Your task to perform on an android device: Go to network settings Image 0: 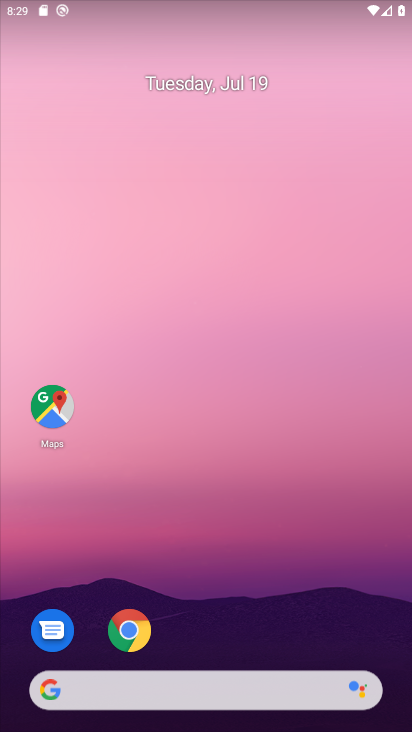
Step 0: drag from (209, 640) to (218, 176)
Your task to perform on an android device: Go to network settings Image 1: 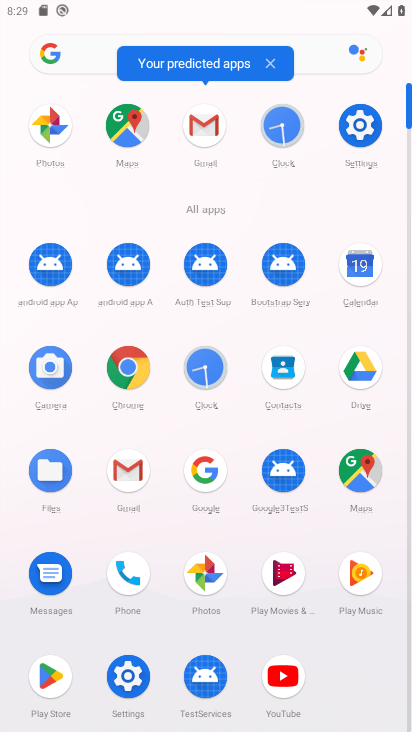
Step 1: click (130, 683)
Your task to perform on an android device: Go to network settings Image 2: 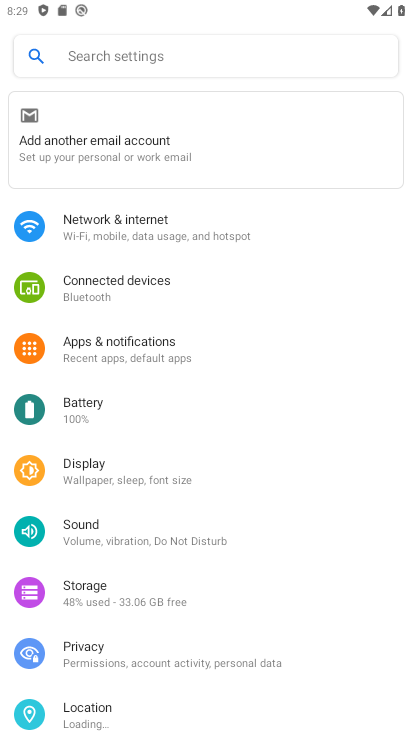
Step 2: click (144, 241)
Your task to perform on an android device: Go to network settings Image 3: 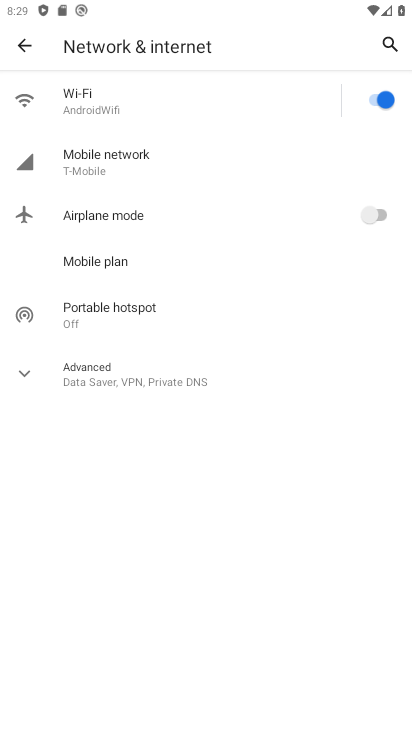
Step 3: click (148, 168)
Your task to perform on an android device: Go to network settings Image 4: 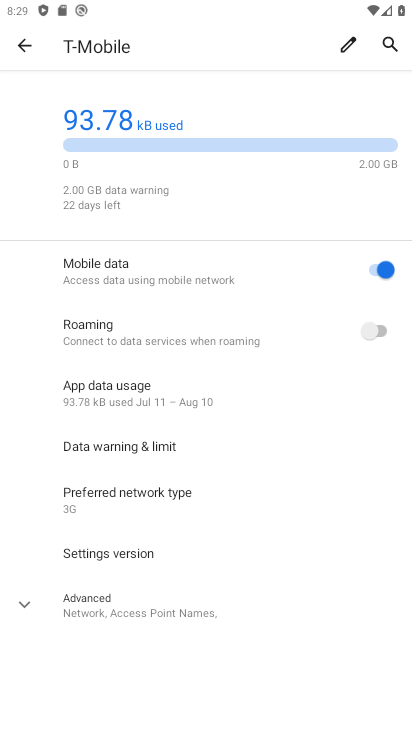
Step 4: task complete